Your task to perform on an android device: add a label to a message in the gmail app Image 0: 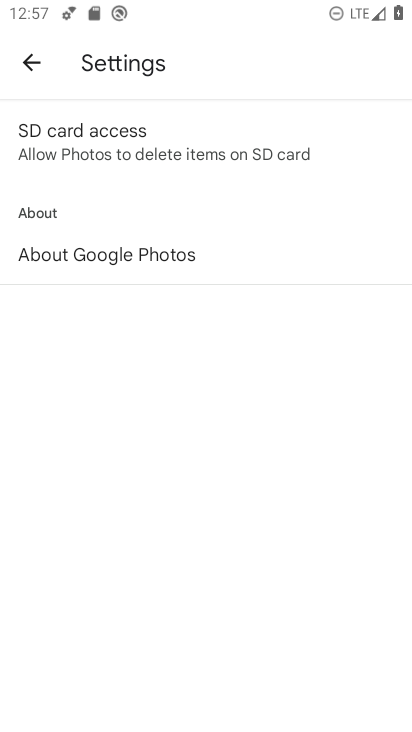
Step 0: press home button
Your task to perform on an android device: add a label to a message in the gmail app Image 1: 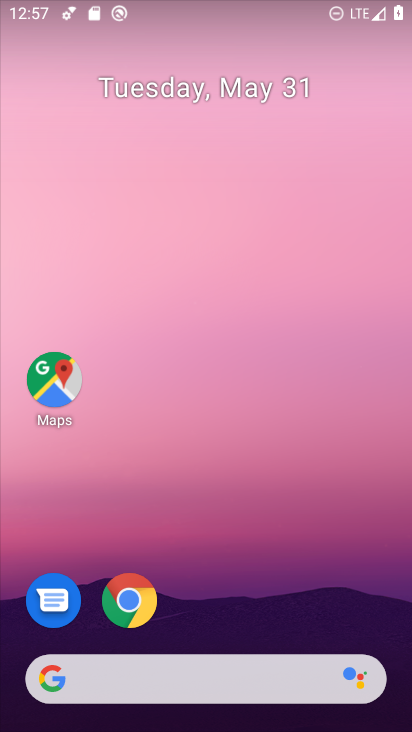
Step 1: drag from (203, 698) to (197, 33)
Your task to perform on an android device: add a label to a message in the gmail app Image 2: 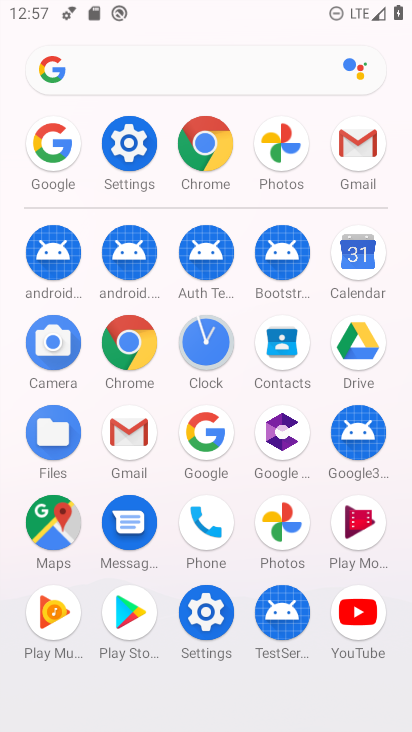
Step 2: click (128, 436)
Your task to perform on an android device: add a label to a message in the gmail app Image 3: 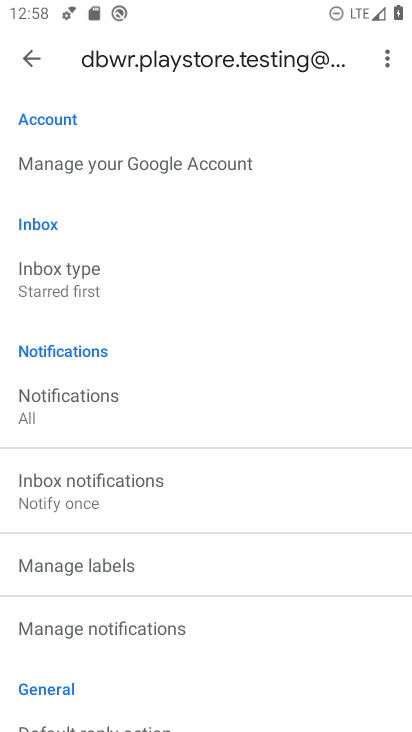
Step 3: click (23, 52)
Your task to perform on an android device: add a label to a message in the gmail app Image 4: 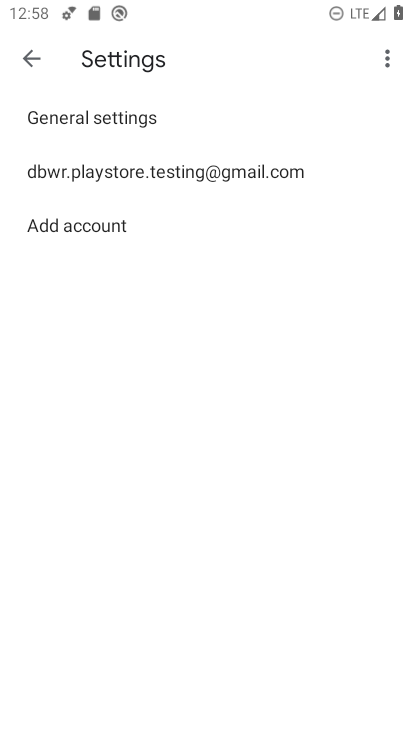
Step 4: click (27, 54)
Your task to perform on an android device: add a label to a message in the gmail app Image 5: 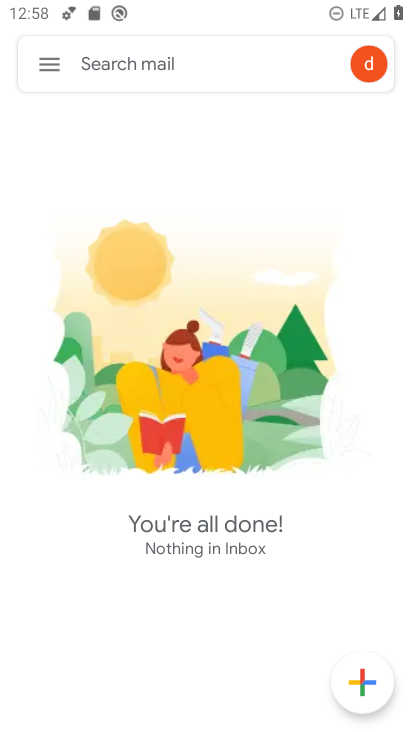
Step 5: task complete